Your task to perform on an android device: Go to Google Image 0: 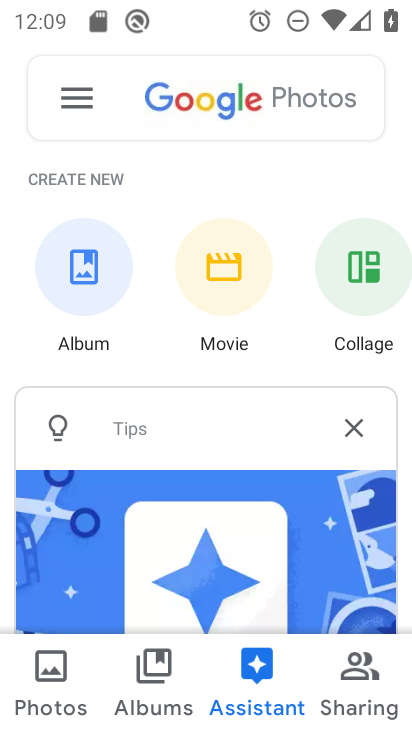
Step 0: press home button
Your task to perform on an android device: Go to Google Image 1: 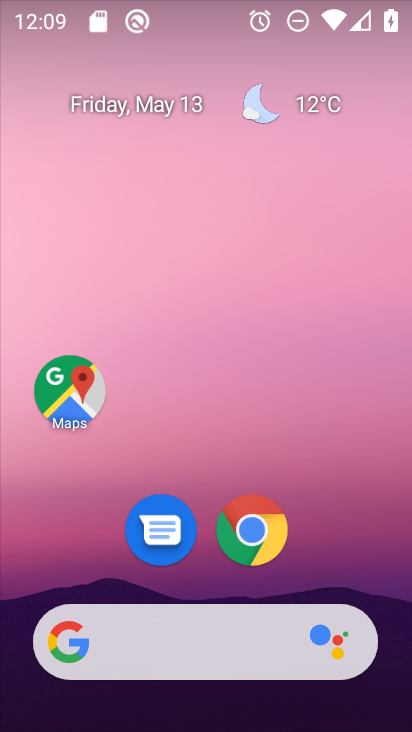
Step 1: drag from (188, 653) to (304, 219)
Your task to perform on an android device: Go to Google Image 2: 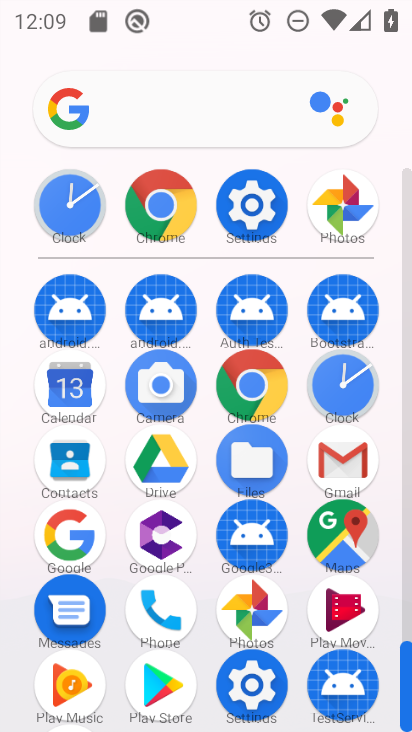
Step 2: click (87, 544)
Your task to perform on an android device: Go to Google Image 3: 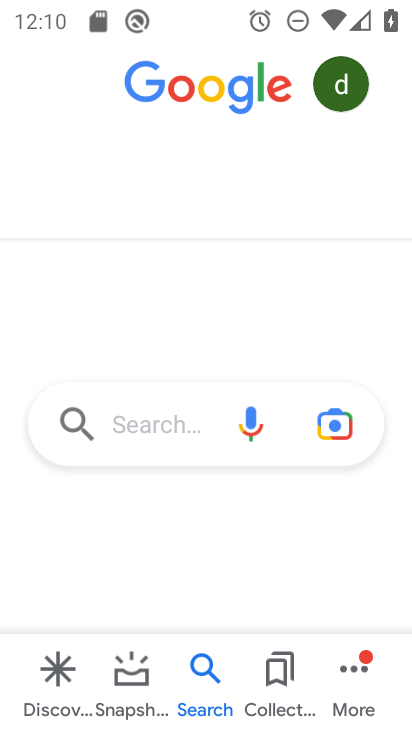
Step 3: task complete